Your task to perform on an android device: Turn on the flashlight Image 0: 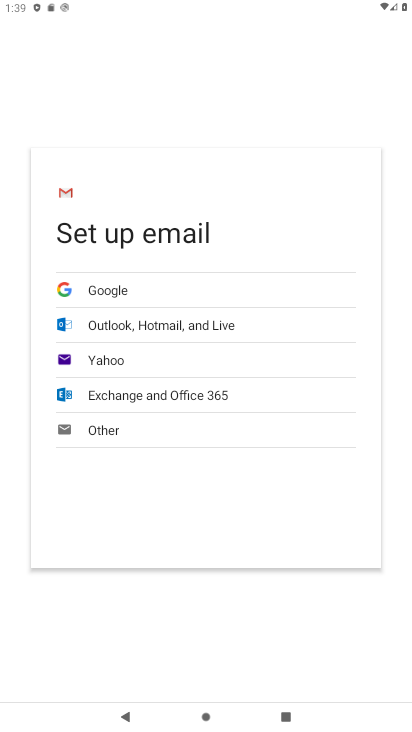
Step 0: press home button
Your task to perform on an android device: Turn on the flashlight Image 1: 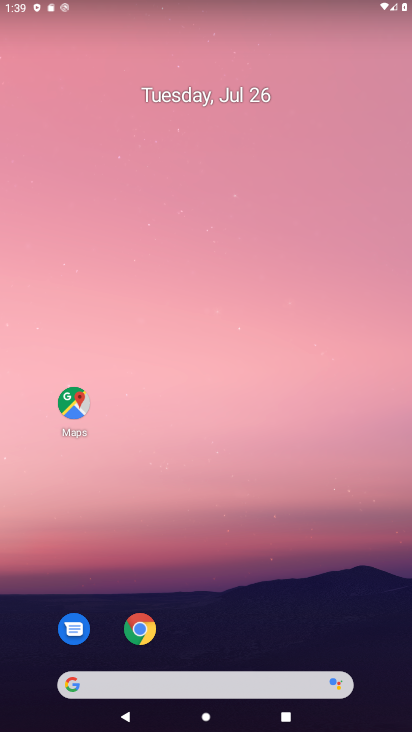
Step 1: drag from (216, 16) to (223, 386)
Your task to perform on an android device: Turn on the flashlight Image 2: 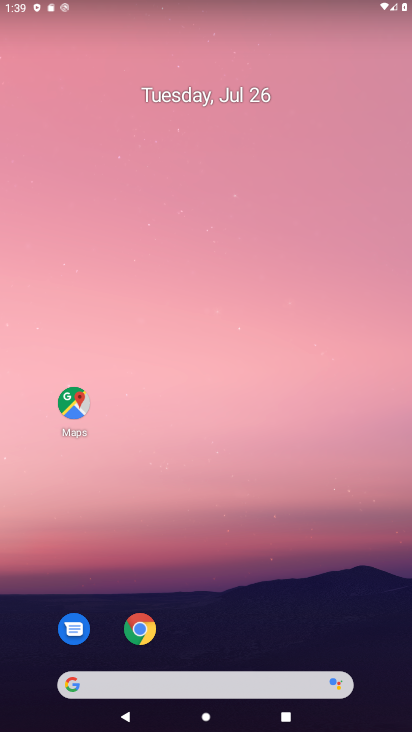
Step 2: drag from (213, 10) to (203, 462)
Your task to perform on an android device: Turn on the flashlight Image 3: 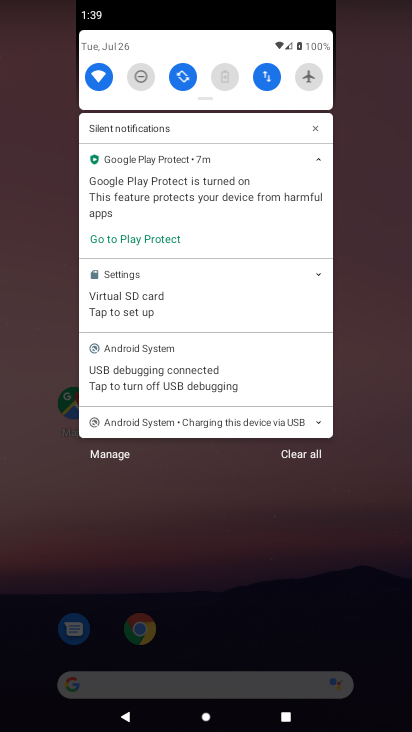
Step 3: drag from (204, 95) to (188, 395)
Your task to perform on an android device: Turn on the flashlight Image 4: 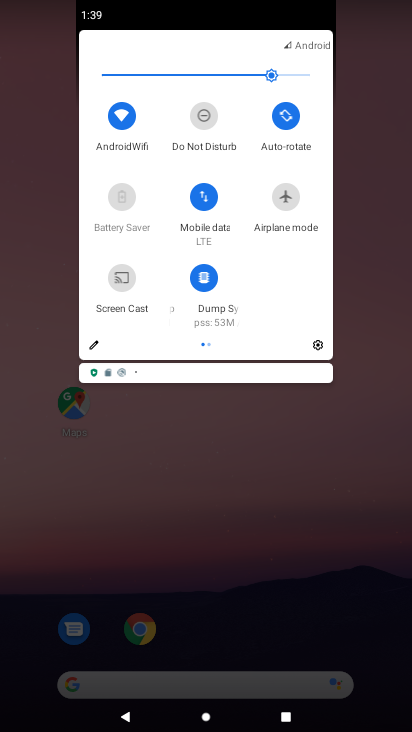
Step 4: click (91, 347)
Your task to perform on an android device: Turn on the flashlight Image 5: 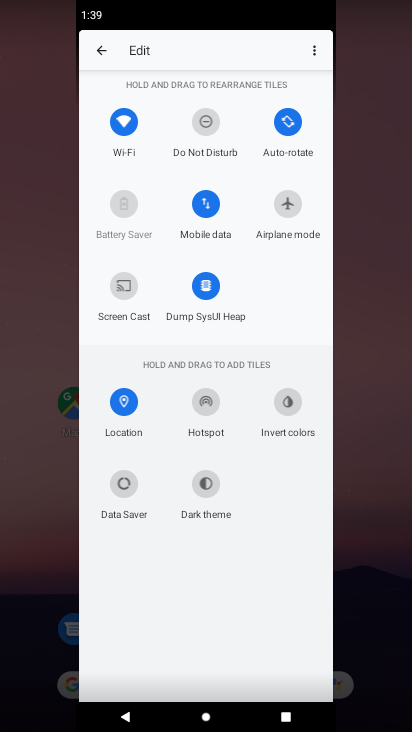
Step 5: task complete